Your task to perform on an android device: all mails in gmail Image 0: 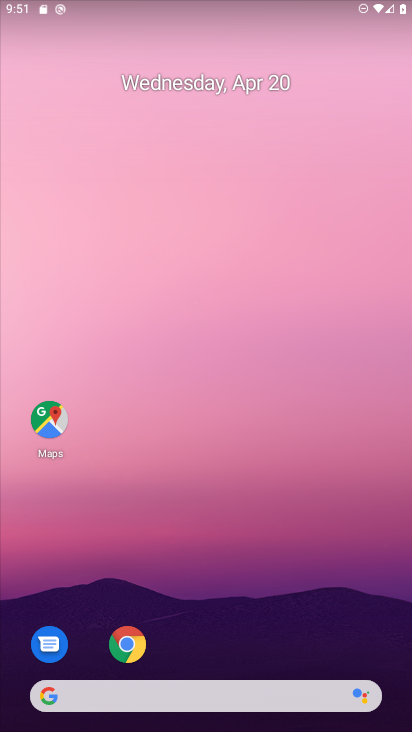
Step 0: drag from (331, 611) to (268, 90)
Your task to perform on an android device: all mails in gmail Image 1: 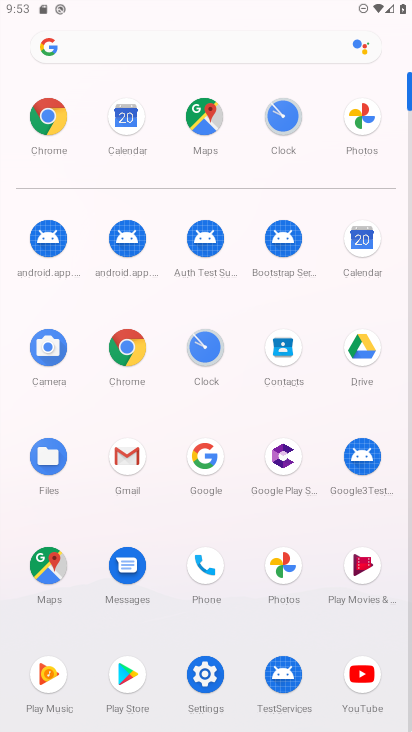
Step 1: click (122, 445)
Your task to perform on an android device: all mails in gmail Image 2: 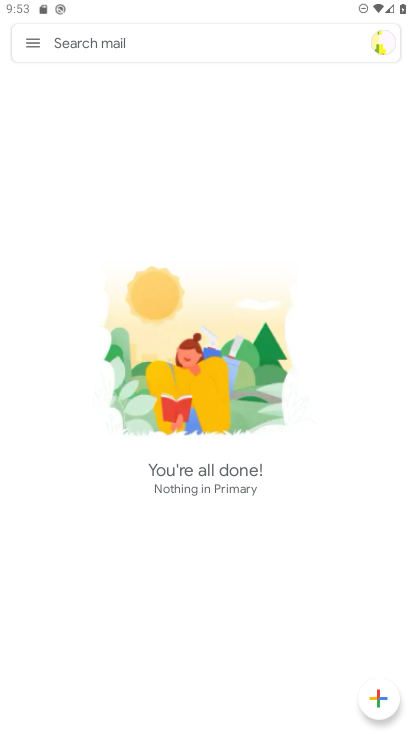
Step 2: click (39, 47)
Your task to perform on an android device: all mails in gmail Image 3: 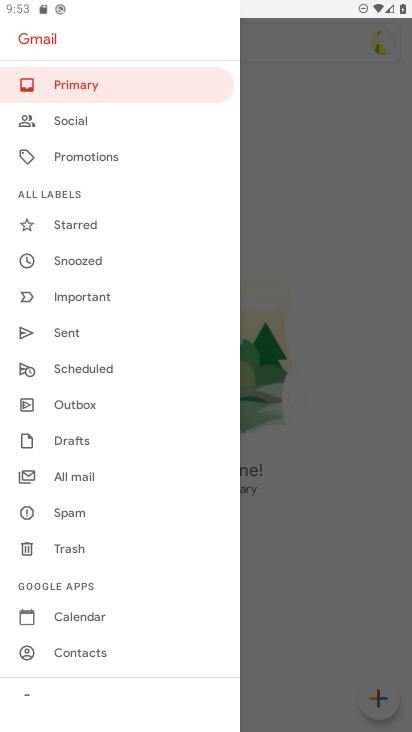
Step 3: click (108, 477)
Your task to perform on an android device: all mails in gmail Image 4: 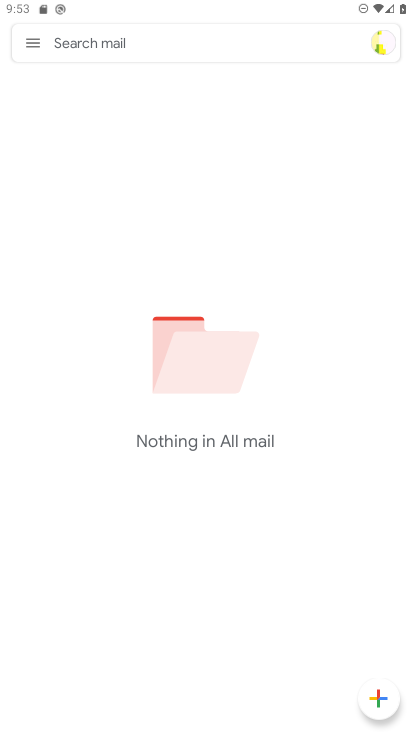
Step 4: task complete